Your task to perform on an android device: Open calendar and show me the third week of next month Image 0: 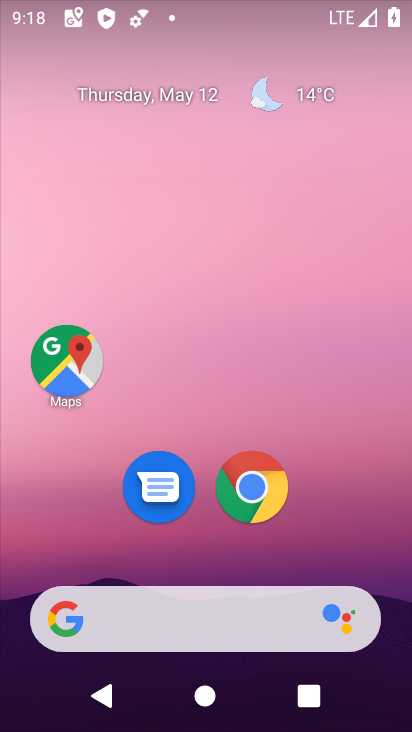
Step 0: drag from (13, 606) to (234, 182)
Your task to perform on an android device: Open calendar and show me the third week of next month Image 1: 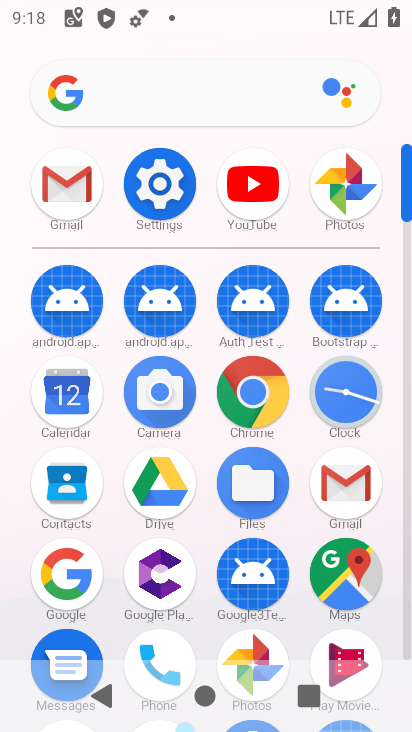
Step 1: click (82, 398)
Your task to perform on an android device: Open calendar and show me the third week of next month Image 2: 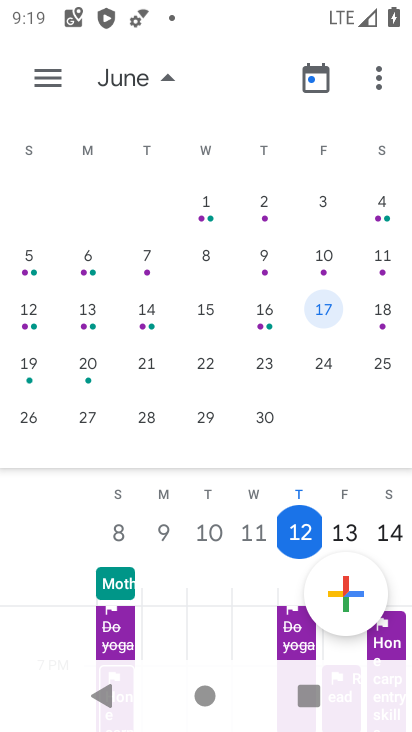
Step 2: task complete